Your task to perform on an android device: Go to Google Image 0: 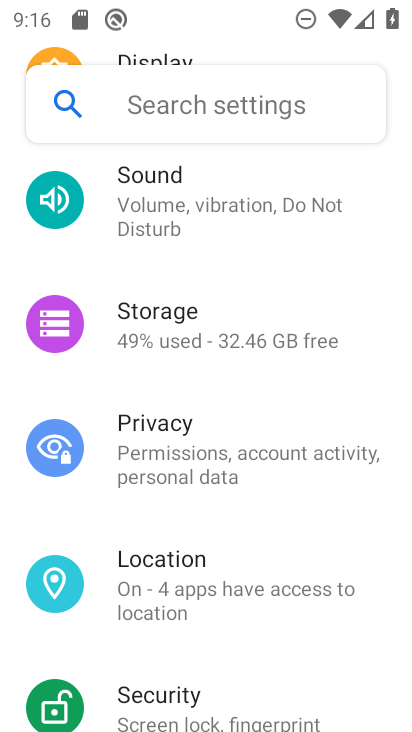
Step 0: press home button
Your task to perform on an android device: Go to Google Image 1: 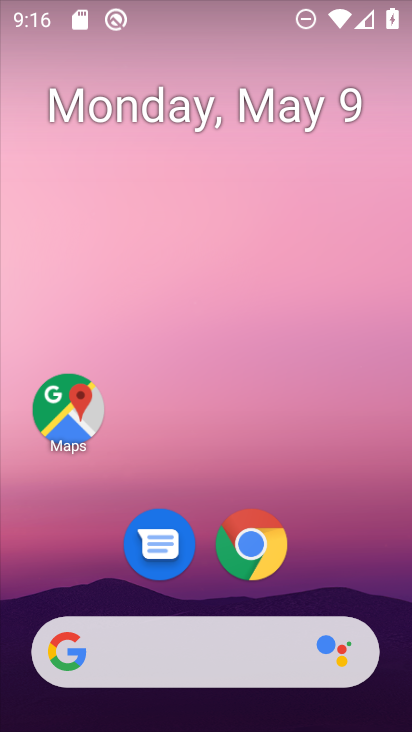
Step 1: click (113, 662)
Your task to perform on an android device: Go to Google Image 2: 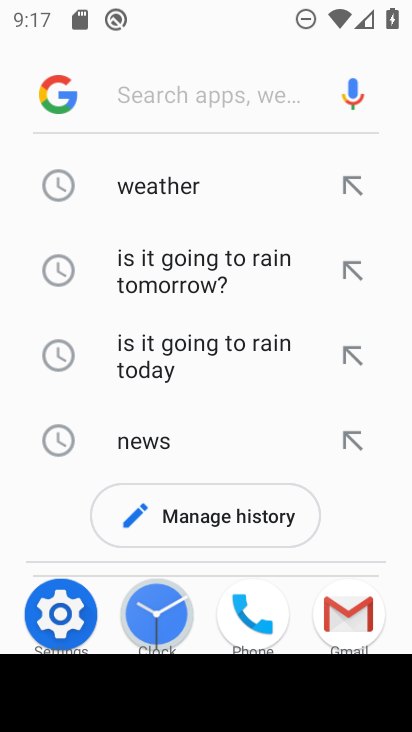
Step 2: task complete